Your task to perform on an android device: Set the phone to "Do not disturb". Image 0: 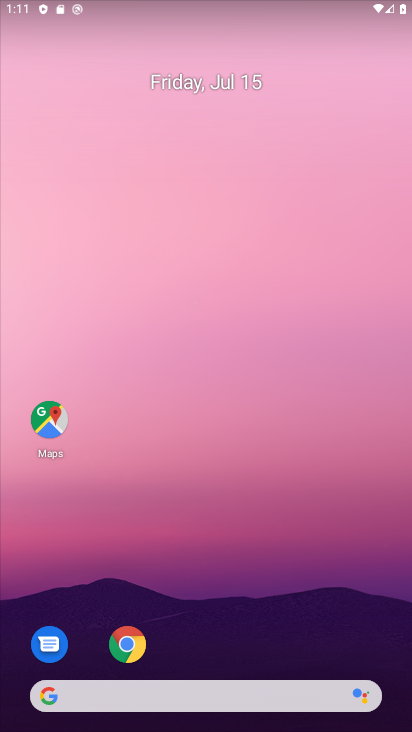
Step 0: click (137, 640)
Your task to perform on an android device: Set the phone to "Do not disturb". Image 1: 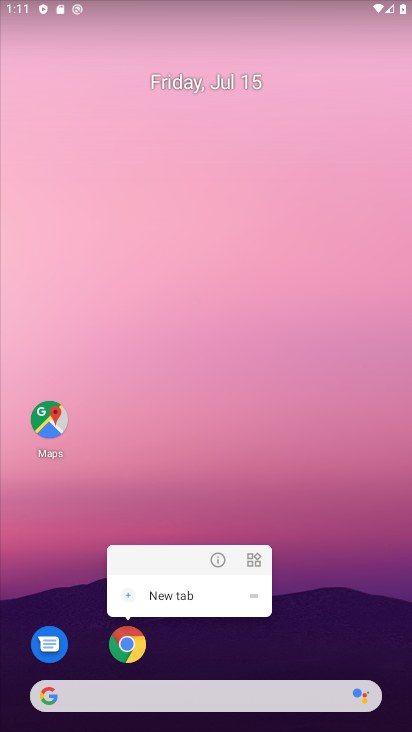
Step 1: drag from (401, 647) to (278, 91)
Your task to perform on an android device: Set the phone to "Do not disturb". Image 2: 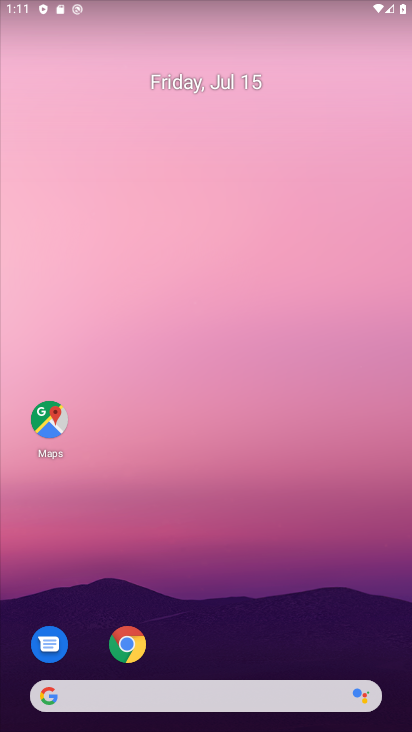
Step 2: drag from (396, 708) to (288, 36)
Your task to perform on an android device: Set the phone to "Do not disturb". Image 3: 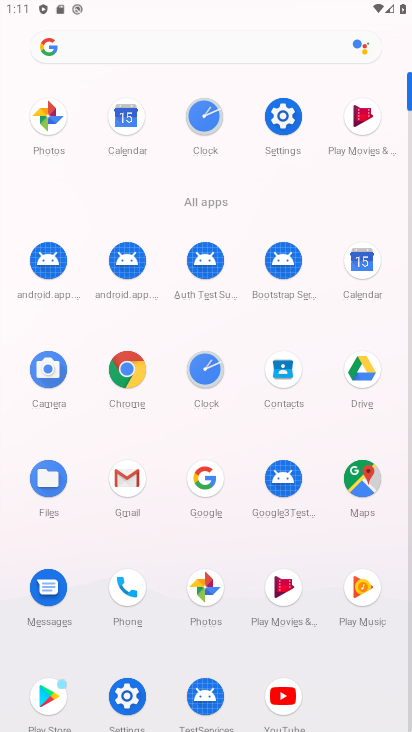
Step 3: click (296, 99)
Your task to perform on an android device: Set the phone to "Do not disturb". Image 4: 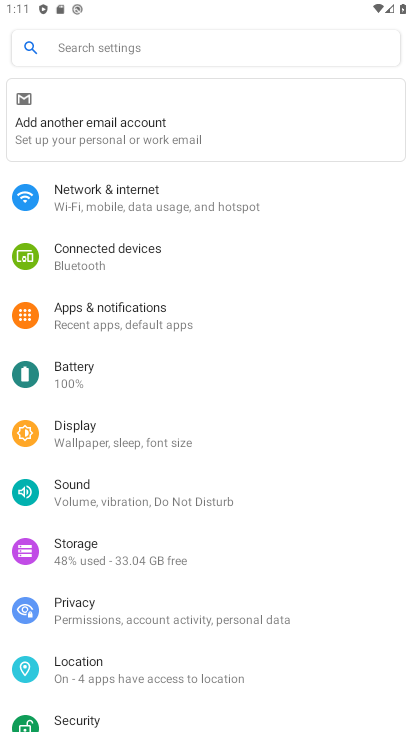
Step 4: click (98, 484)
Your task to perform on an android device: Set the phone to "Do not disturb". Image 5: 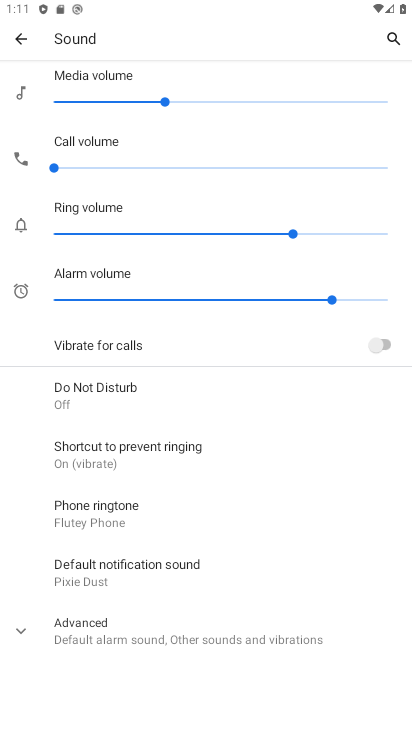
Step 5: click (74, 383)
Your task to perform on an android device: Set the phone to "Do not disturb". Image 6: 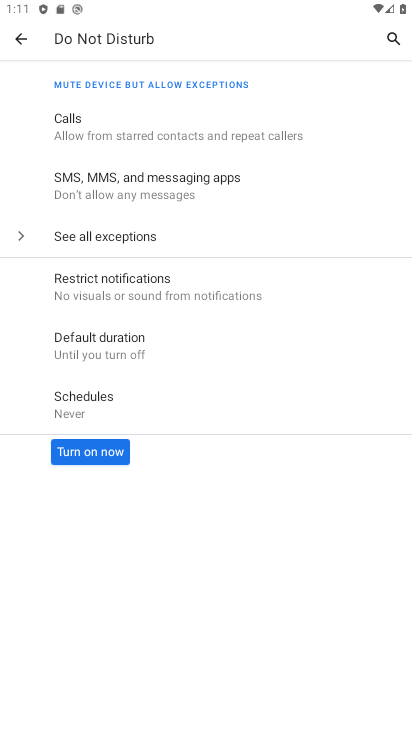
Step 6: click (87, 460)
Your task to perform on an android device: Set the phone to "Do not disturb". Image 7: 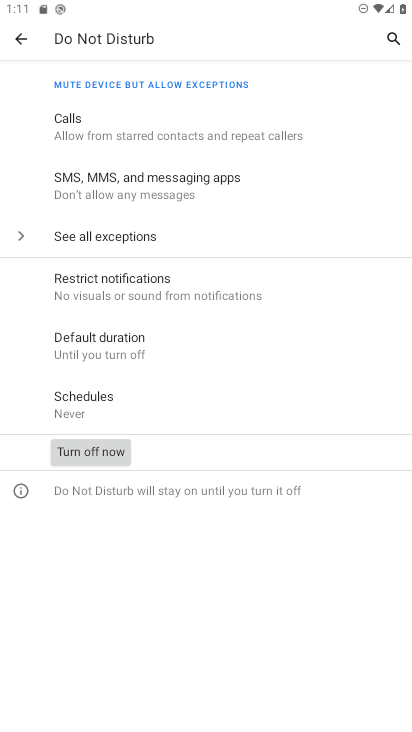
Step 7: task complete